Your task to perform on an android device: turn off airplane mode Image 0: 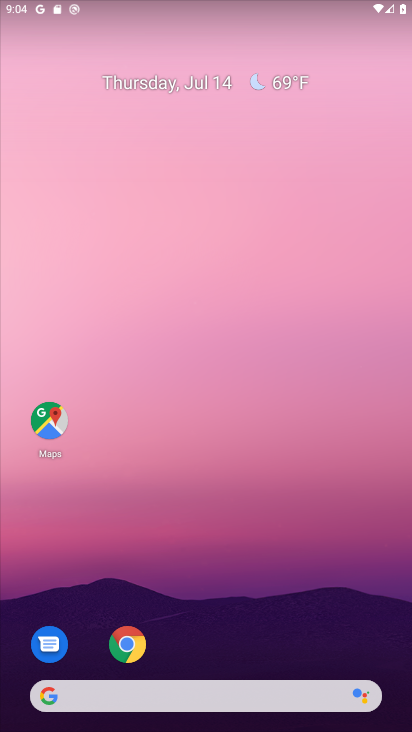
Step 0: drag from (189, 8) to (4, 653)
Your task to perform on an android device: turn off airplane mode Image 1: 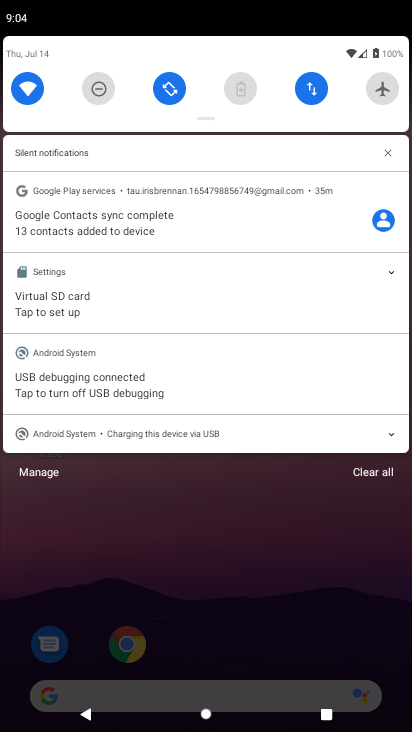
Step 1: task complete